Your task to perform on an android device: allow cookies in the chrome app Image 0: 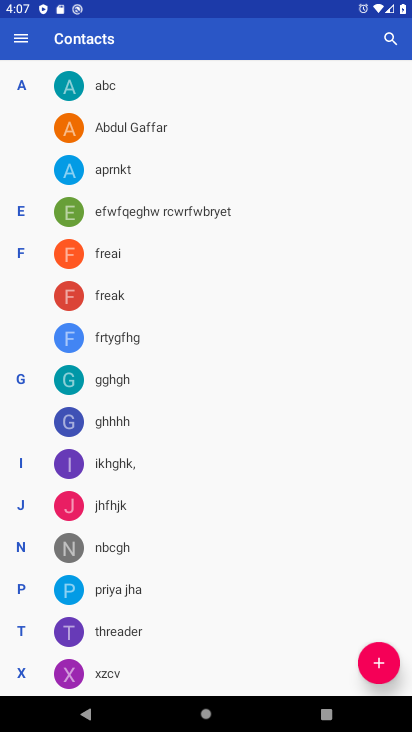
Step 0: press home button
Your task to perform on an android device: allow cookies in the chrome app Image 1: 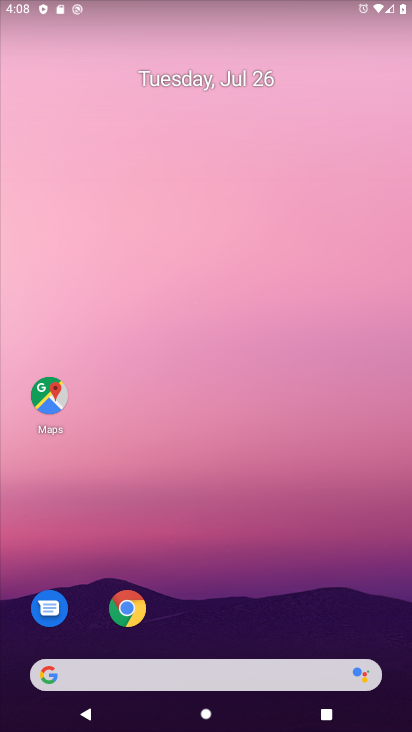
Step 1: click (128, 601)
Your task to perform on an android device: allow cookies in the chrome app Image 2: 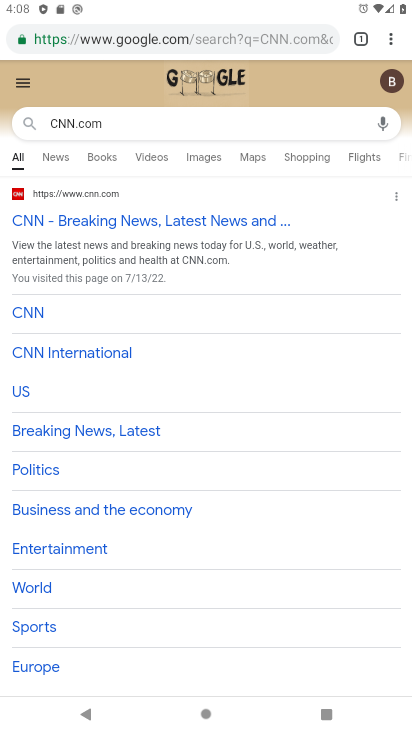
Step 2: click (387, 39)
Your task to perform on an android device: allow cookies in the chrome app Image 3: 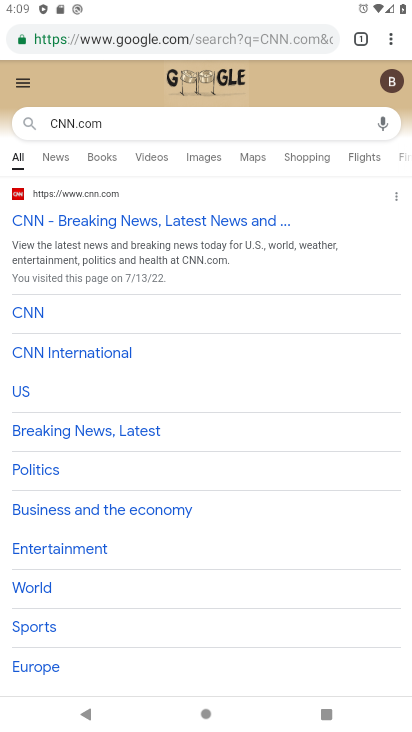
Step 3: click (390, 43)
Your task to perform on an android device: allow cookies in the chrome app Image 4: 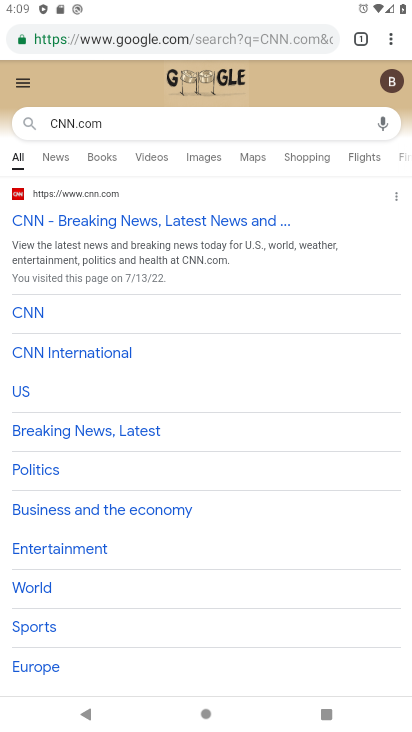
Step 4: click (387, 37)
Your task to perform on an android device: allow cookies in the chrome app Image 5: 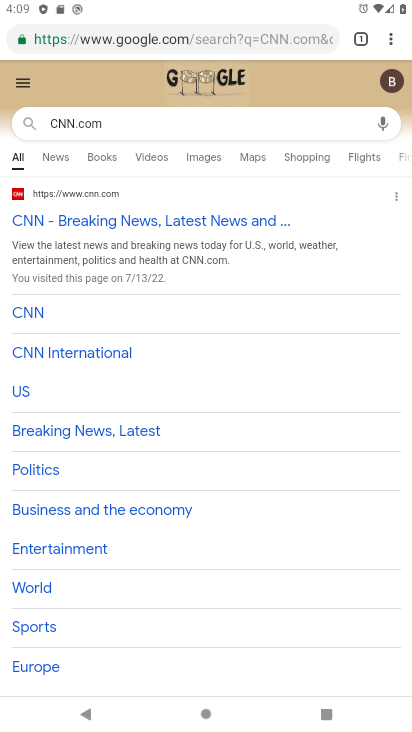
Step 5: click (387, 37)
Your task to perform on an android device: allow cookies in the chrome app Image 6: 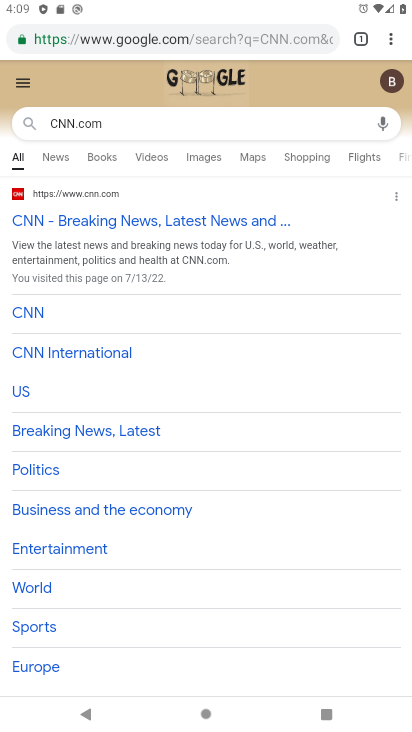
Step 6: click (391, 37)
Your task to perform on an android device: allow cookies in the chrome app Image 7: 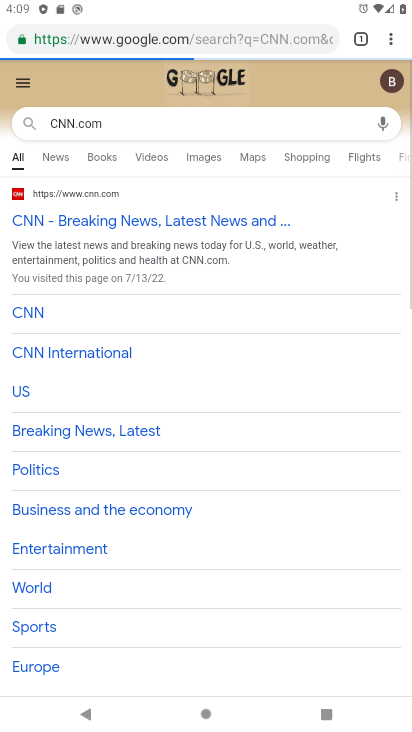
Step 7: click (391, 37)
Your task to perform on an android device: allow cookies in the chrome app Image 8: 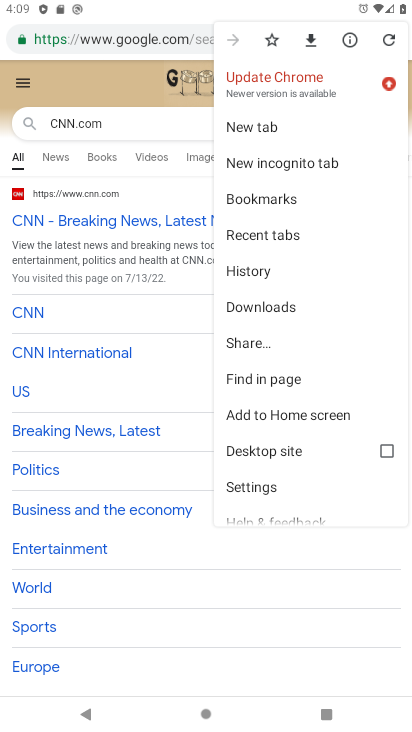
Step 8: click (234, 489)
Your task to perform on an android device: allow cookies in the chrome app Image 9: 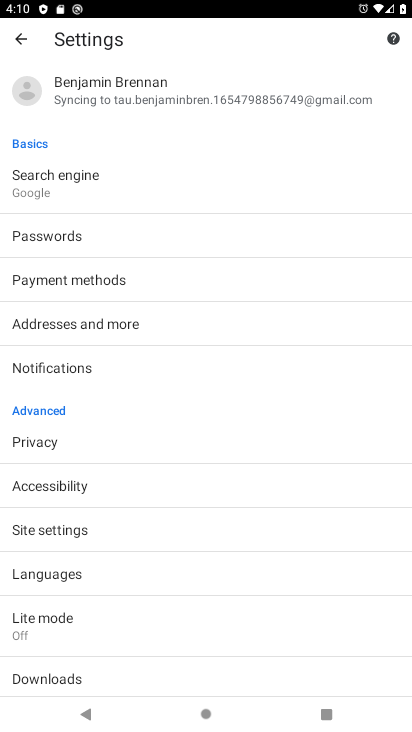
Step 9: drag from (239, 644) to (255, 245)
Your task to perform on an android device: allow cookies in the chrome app Image 10: 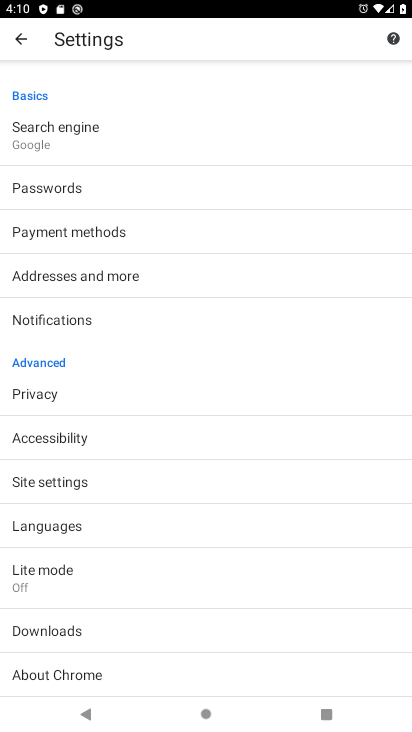
Step 10: drag from (201, 650) to (185, 298)
Your task to perform on an android device: allow cookies in the chrome app Image 11: 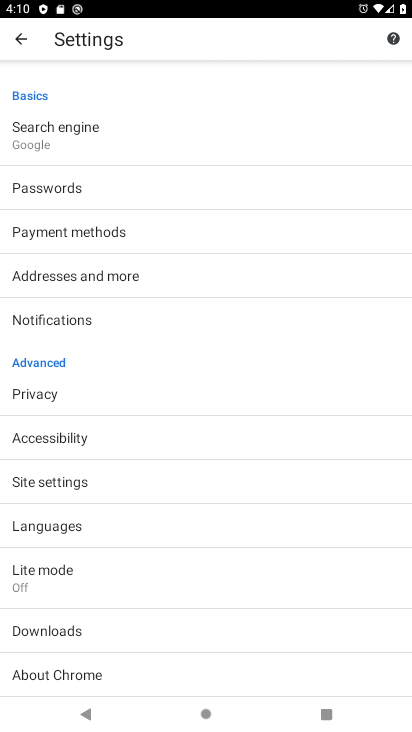
Step 11: click (62, 486)
Your task to perform on an android device: allow cookies in the chrome app Image 12: 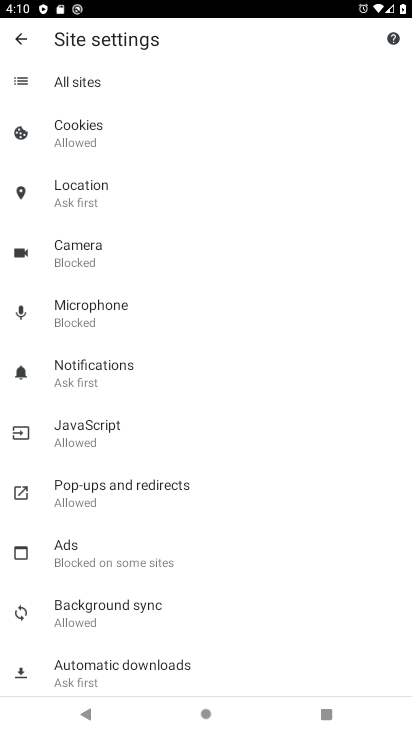
Step 12: click (84, 137)
Your task to perform on an android device: allow cookies in the chrome app Image 13: 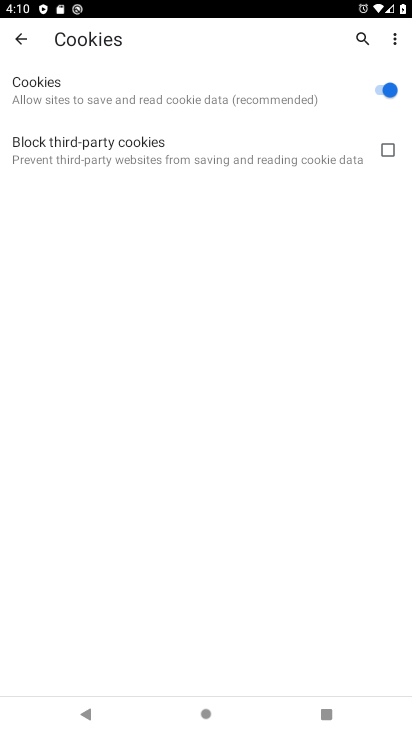
Step 13: task complete